Your task to perform on an android device: empty trash in google photos Image 0: 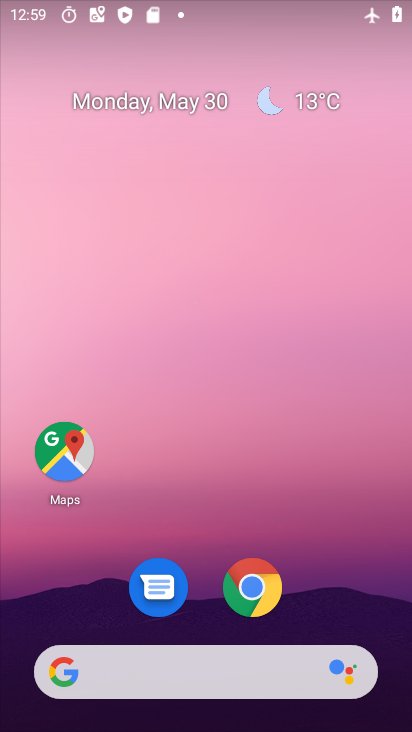
Step 0: drag from (330, 568) to (332, 142)
Your task to perform on an android device: empty trash in google photos Image 1: 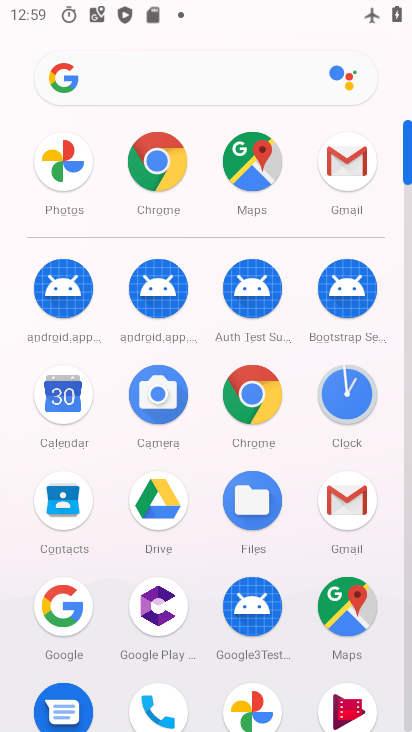
Step 1: click (242, 710)
Your task to perform on an android device: empty trash in google photos Image 2: 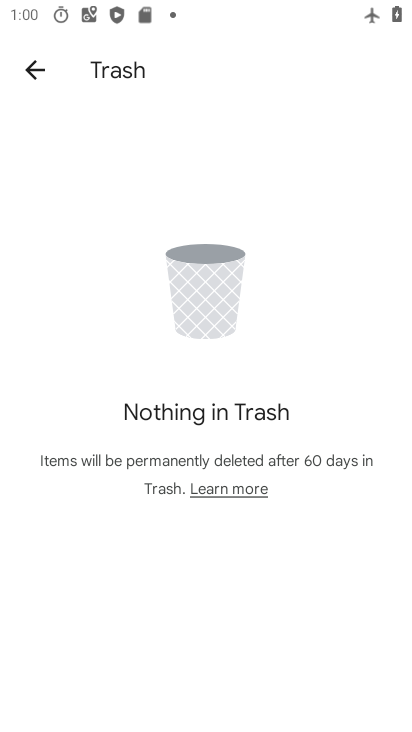
Step 2: task complete